Your task to perform on an android device: Go to accessibility settings Image 0: 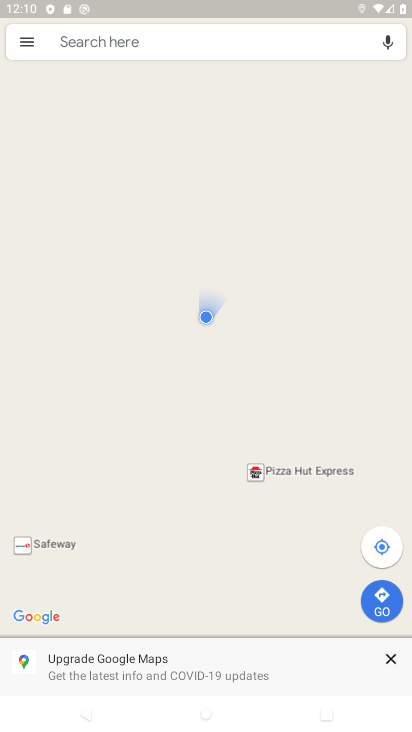
Step 0: press home button
Your task to perform on an android device: Go to accessibility settings Image 1: 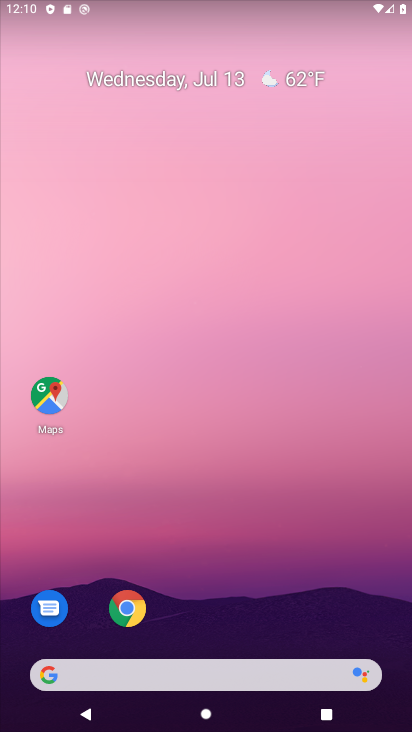
Step 1: drag from (344, 603) to (345, 48)
Your task to perform on an android device: Go to accessibility settings Image 2: 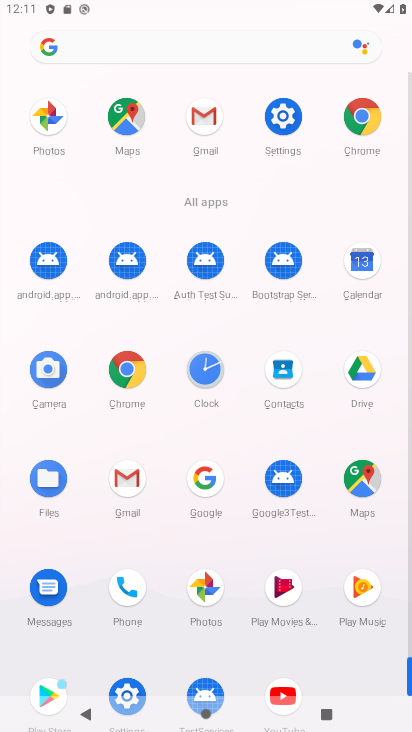
Step 2: click (293, 121)
Your task to perform on an android device: Go to accessibility settings Image 3: 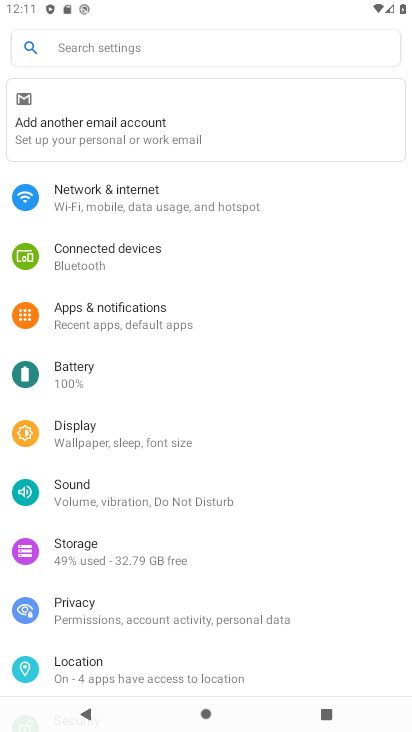
Step 3: drag from (336, 449) to (338, 315)
Your task to perform on an android device: Go to accessibility settings Image 4: 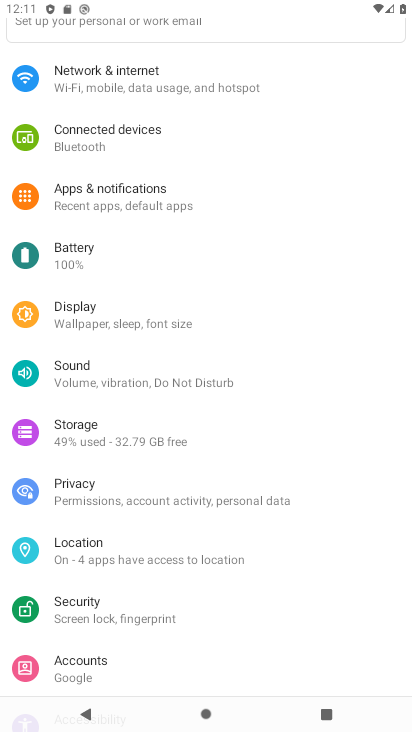
Step 4: drag from (340, 459) to (340, 299)
Your task to perform on an android device: Go to accessibility settings Image 5: 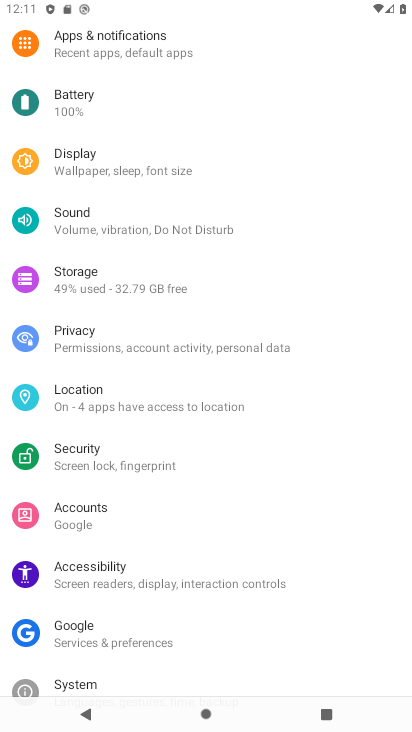
Step 5: drag from (332, 440) to (329, 338)
Your task to perform on an android device: Go to accessibility settings Image 6: 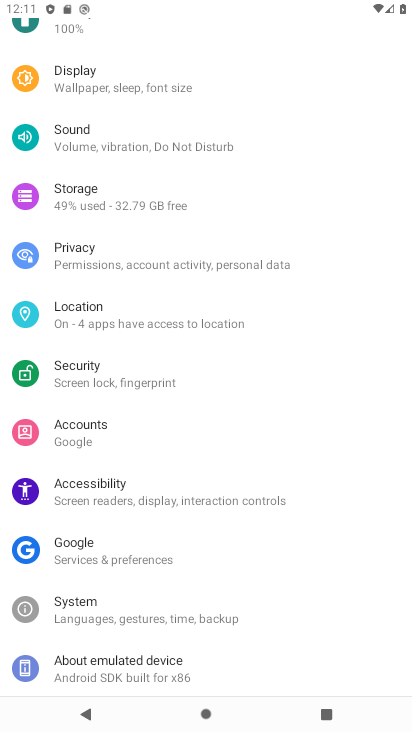
Step 6: drag from (327, 427) to (316, 218)
Your task to perform on an android device: Go to accessibility settings Image 7: 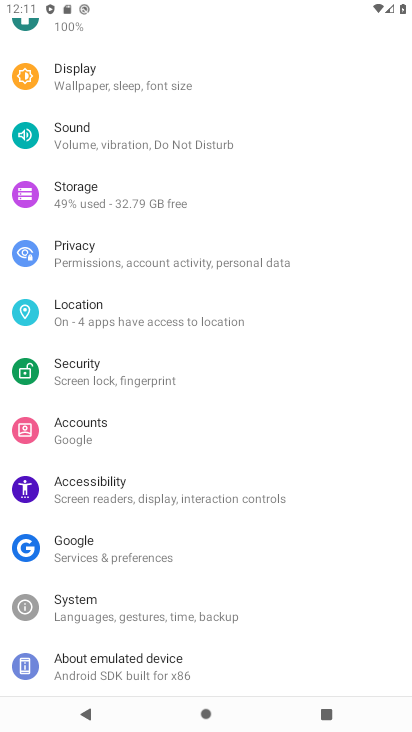
Step 7: drag from (330, 480) to (323, 304)
Your task to perform on an android device: Go to accessibility settings Image 8: 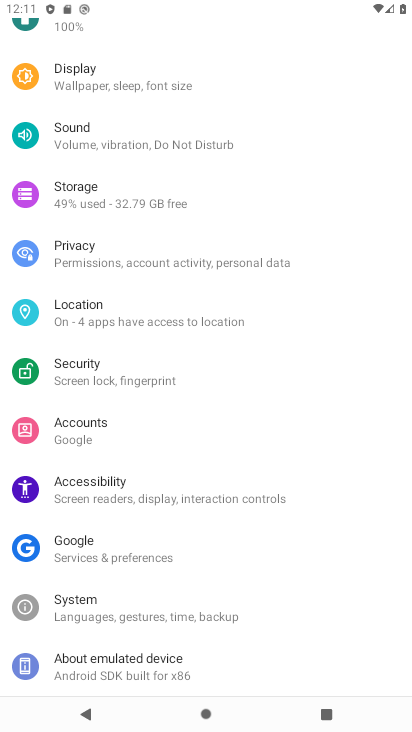
Step 8: drag from (322, 428) to (322, 299)
Your task to perform on an android device: Go to accessibility settings Image 9: 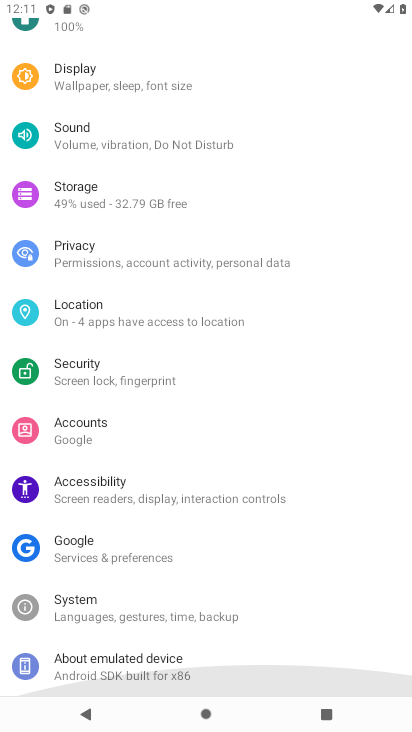
Step 9: drag from (322, 250) to (323, 388)
Your task to perform on an android device: Go to accessibility settings Image 10: 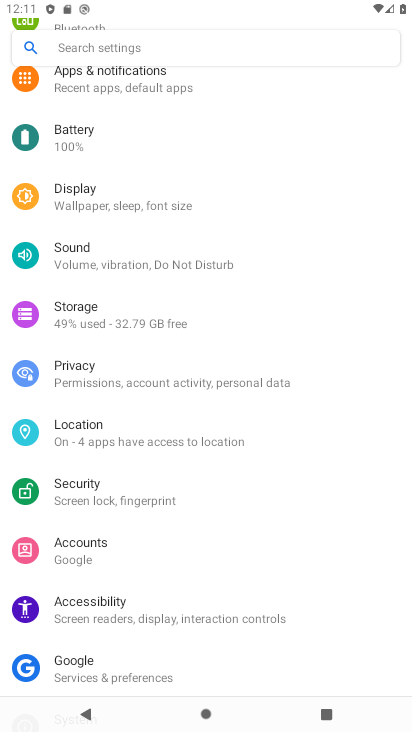
Step 10: drag from (323, 199) to (333, 464)
Your task to perform on an android device: Go to accessibility settings Image 11: 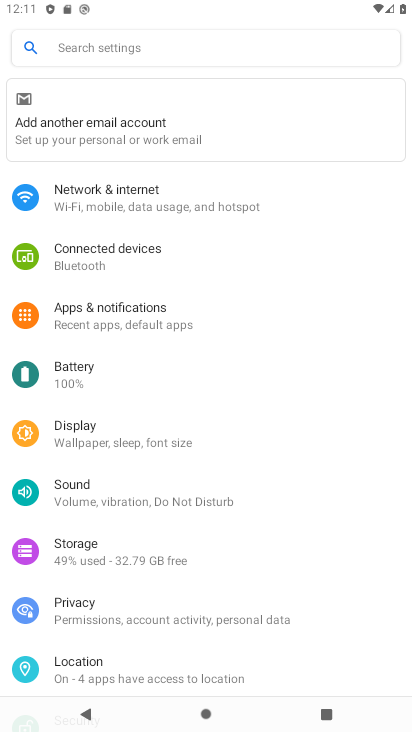
Step 11: drag from (332, 455) to (330, 269)
Your task to perform on an android device: Go to accessibility settings Image 12: 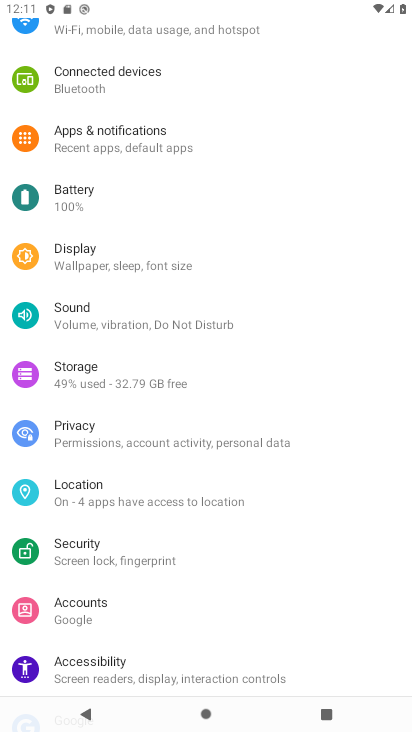
Step 12: drag from (326, 462) to (326, 280)
Your task to perform on an android device: Go to accessibility settings Image 13: 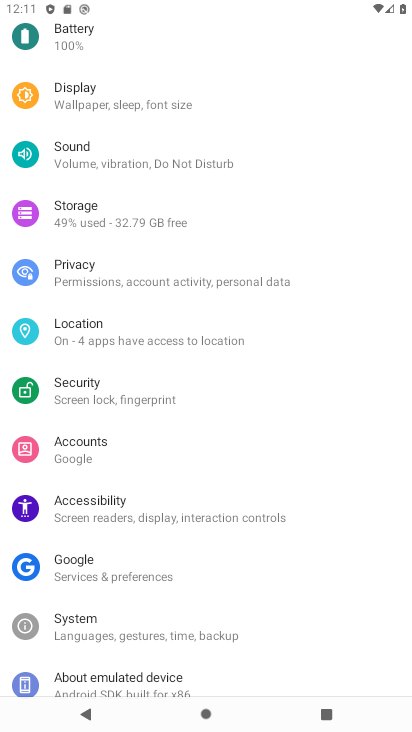
Step 13: click (307, 528)
Your task to perform on an android device: Go to accessibility settings Image 14: 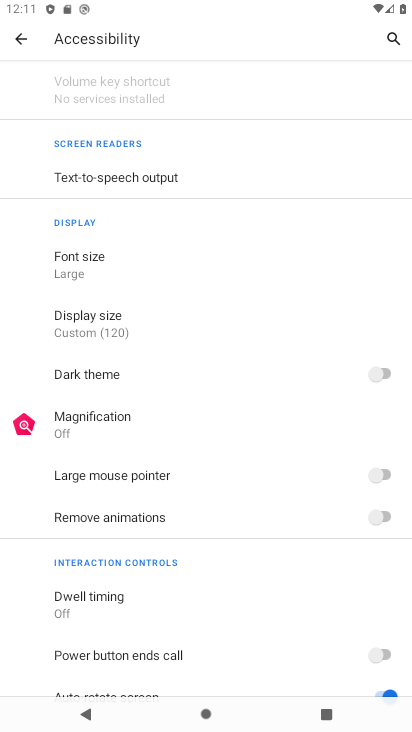
Step 14: task complete